Your task to perform on an android device: Open Yahoo.com Image 0: 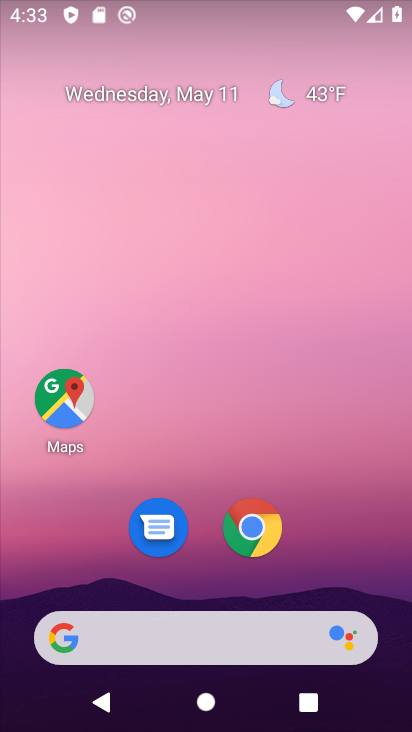
Step 0: click (273, 535)
Your task to perform on an android device: Open Yahoo.com Image 1: 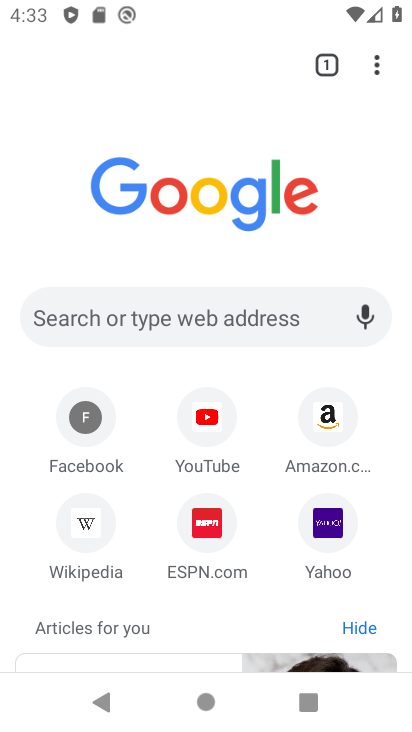
Step 1: click (329, 519)
Your task to perform on an android device: Open Yahoo.com Image 2: 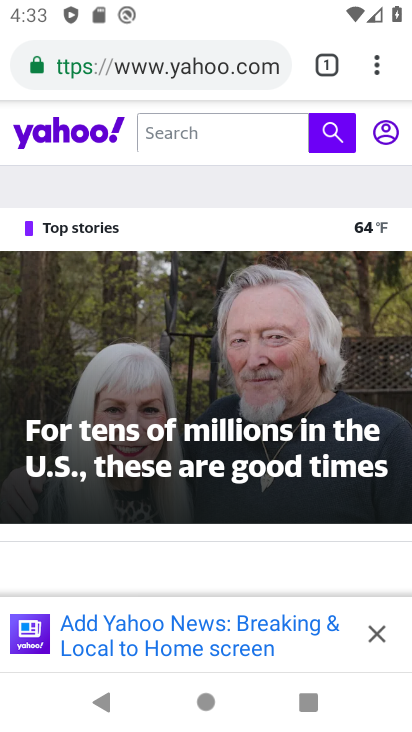
Step 2: task complete